Your task to perform on an android device: Open the map Image 0: 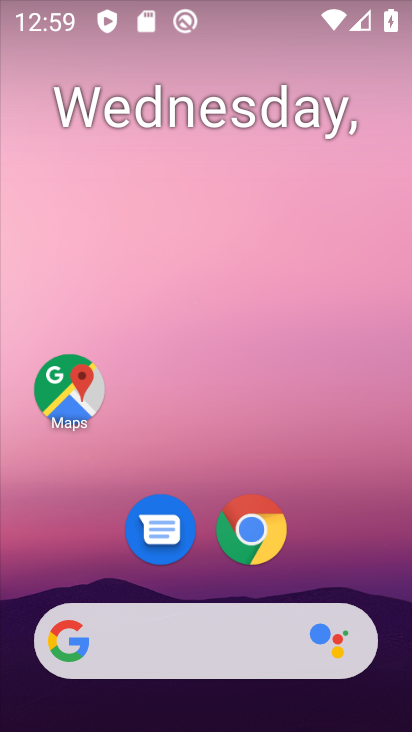
Step 0: click (89, 391)
Your task to perform on an android device: Open the map Image 1: 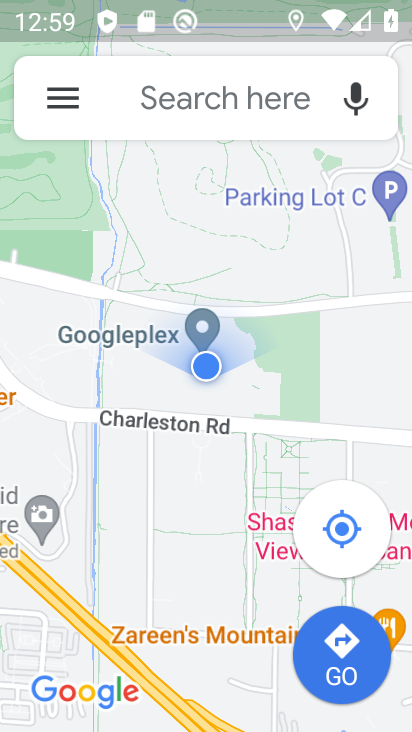
Step 1: task complete